Your task to perform on an android device: Open Maps and search for coffee Image 0: 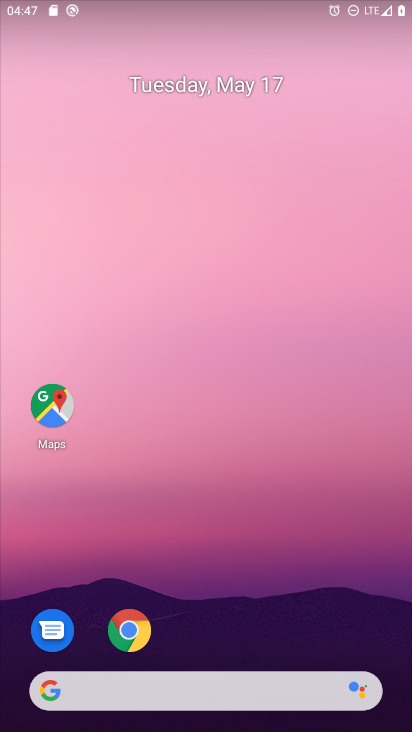
Step 0: click (54, 400)
Your task to perform on an android device: Open Maps and search for coffee Image 1: 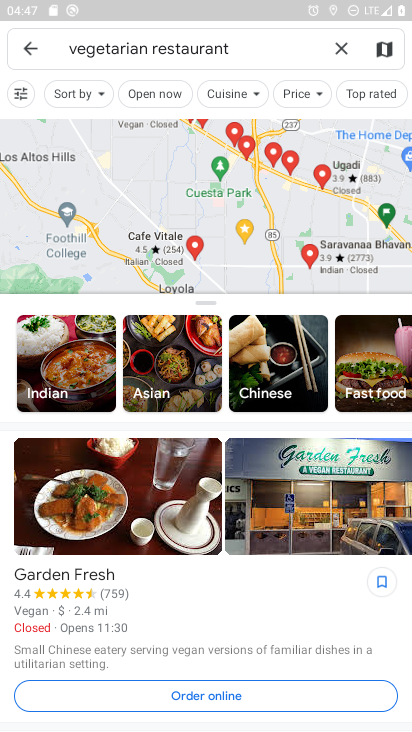
Step 1: click (334, 53)
Your task to perform on an android device: Open Maps and search for coffee Image 2: 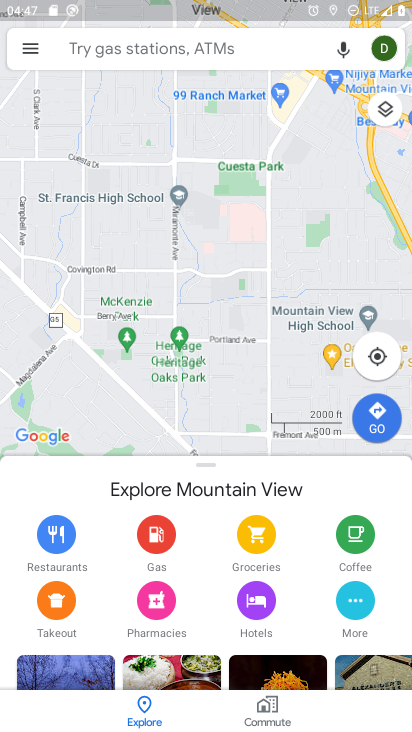
Step 2: click (126, 50)
Your task to perform on an android device: Open Maps and search for coffee Image 3: 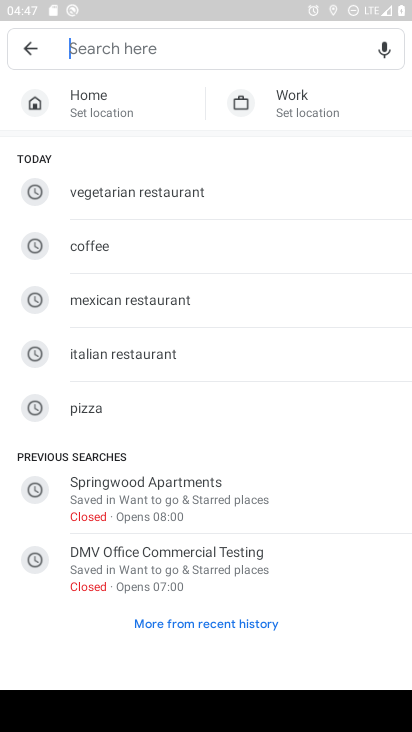
Step 3: click (136, 249)
Your task to perform on an android device: Open Maps and search for coffee Image 4: 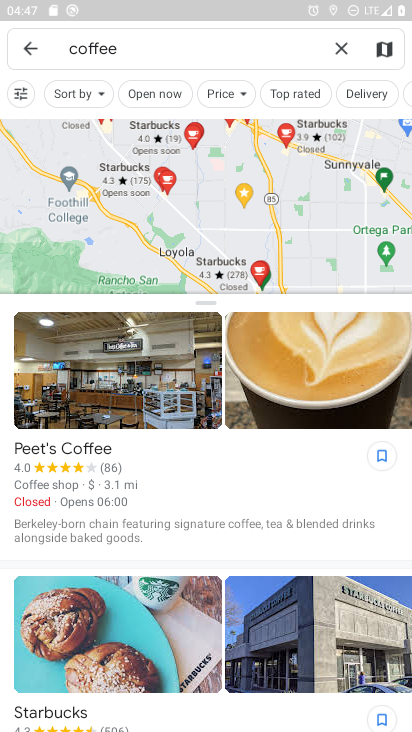
Step 4: task complete